Your task to perform on an android device: find snoozed emails in the gmail app Image 0: 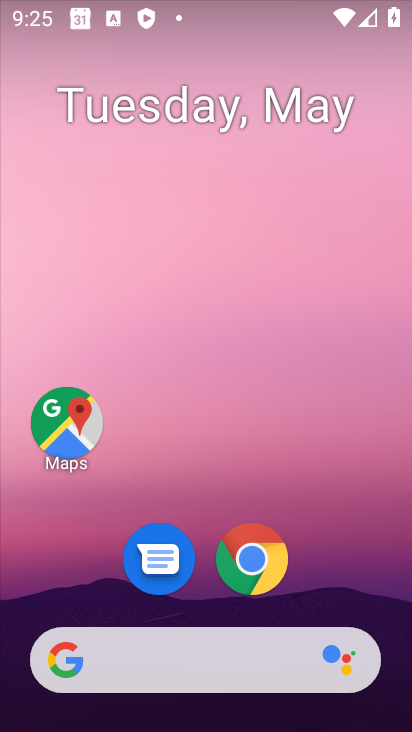
Step 0: drag from (171, 656) to (211, 289)
Your task to perform on an android device: find snoozed emails in the gmail app Image 1: 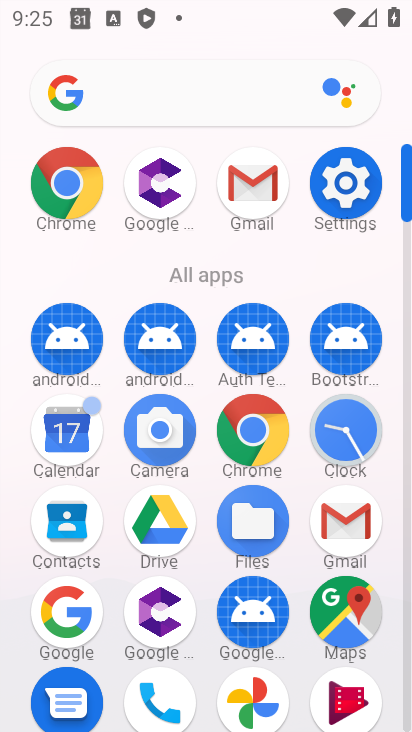
Step 1: click (355, 521)
Your task to perform on an android device: find snoozed emails in the gmail app Image 2: 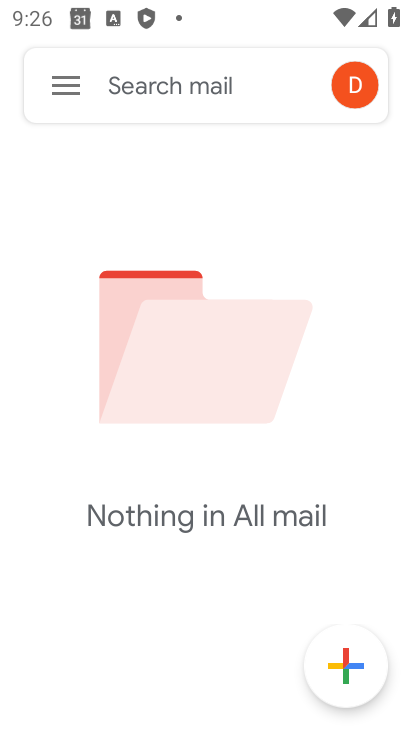
Step 2: click (63, 101)
Your task to perform on an android device: find snoozed emails in the gmail app Image 3: 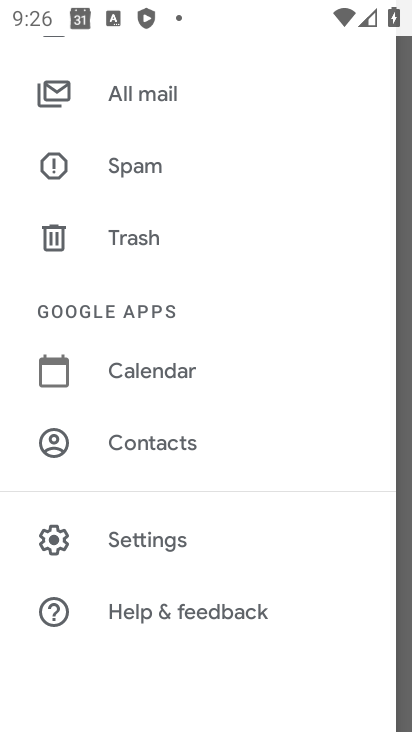
Step 3: drag from (172, 111) to (173, 340)
Your task to perform on an android device: find snoozed emails in the gmail app Image 4: 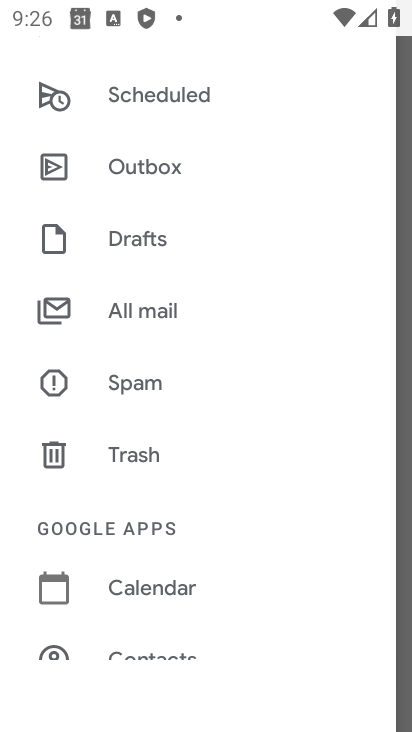
Step 4: drag from (129, 149) to (111, 548)
Your task to perform on an android device: find snoozed emails in the gmail app Image 5: 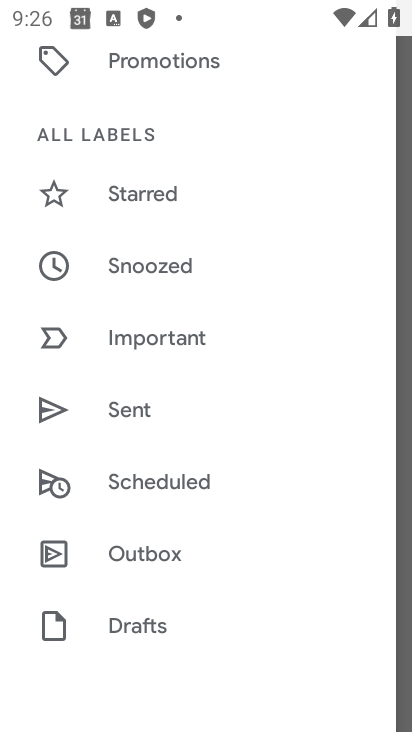
Step 5: click (151, 273)
Your task to perform on an android device: find snoozed emails in the gmail app Image 6: 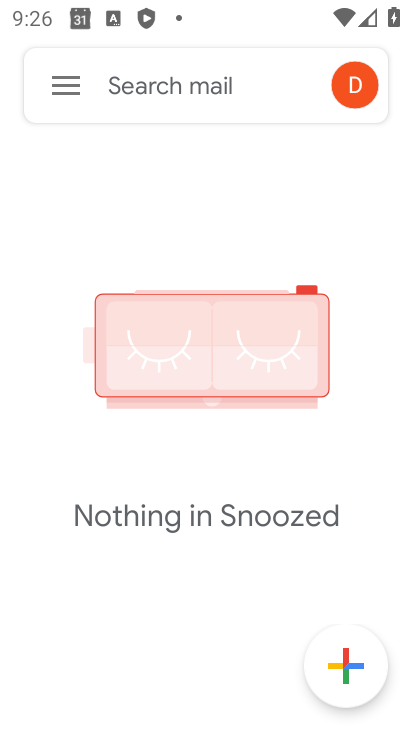
Step 6: task complete